Your task to perform on an android device: Do I have any events today? Image 0: 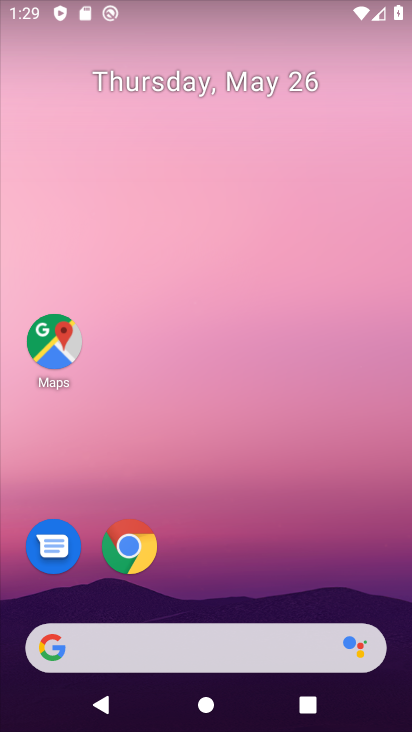
Step 0: drag from (231, 541) to (273, 162)
Your task to perform on an android device: Do I have any events today? Image 1: 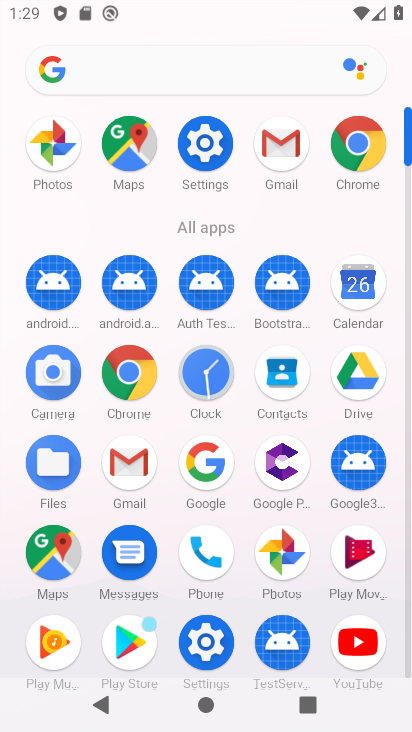
Step 1: click (349, 287)
Your task to perform on an android device: Do I have any events today? Image 2: 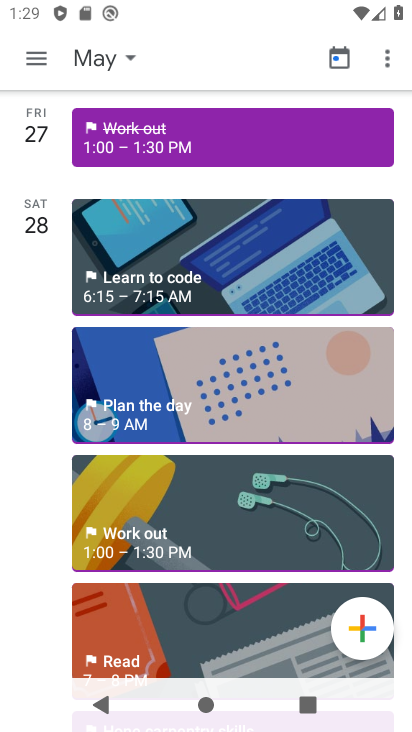
Step 2: click (120, 50)
Your task to perform on an android device: Do I have any events today? Image 3: 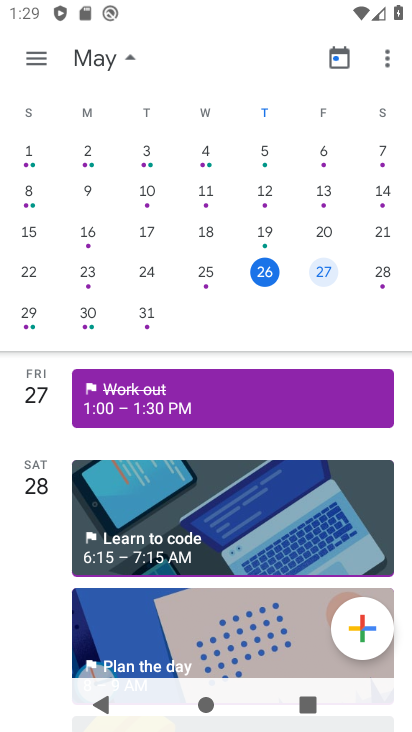
Step 3: click (261, 268)
Your task to perform on an android device: Do I have any events today? Image 4: 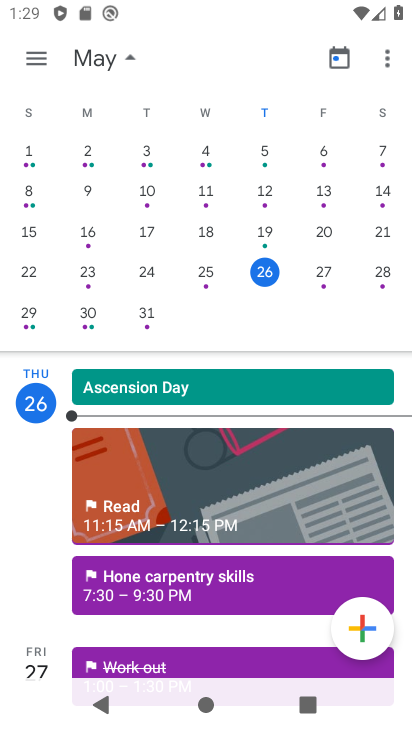
Step 4: task complete